Your task to perform on an android device: turn on the 12-hour format for clock Image 0: 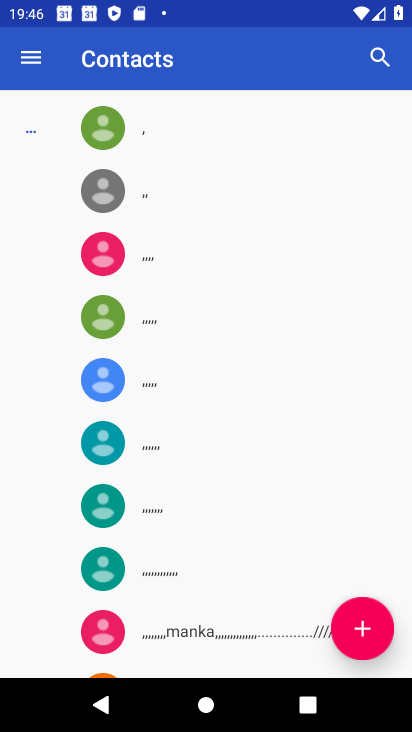
Step 0: press home button
Your task to perform on an android device: turn on the 12-hour format for clock Image 1: 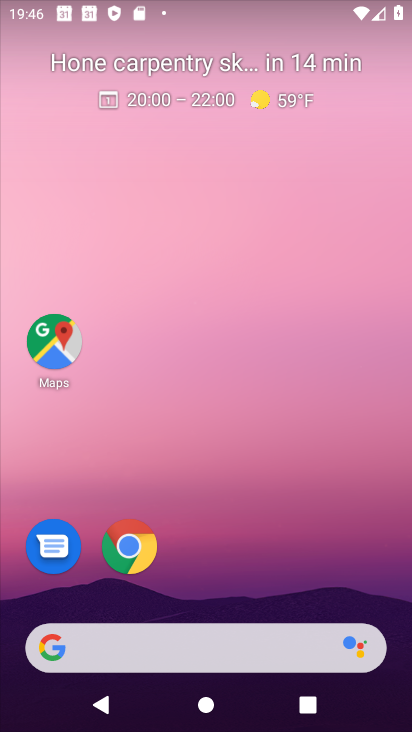
Step 1: drag from (378, 580) to (361, 286)
Your task to perform on an android device: turn on the 12-hour format for clock Image 2: 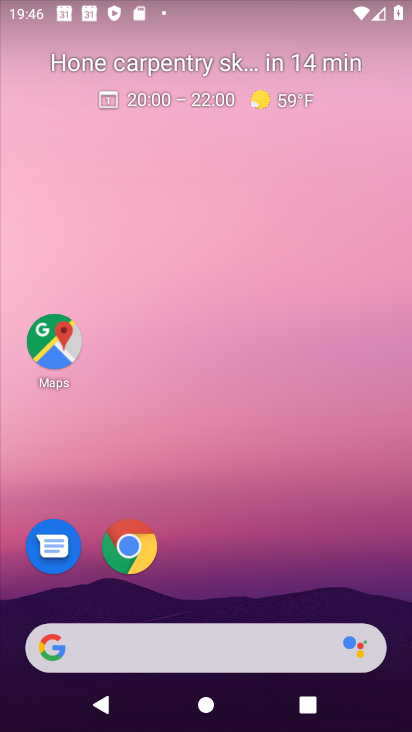
Step 2: drag from (344, 573) to (339, 186)
Your task to perform on an android device: turn on the 12-hour format for clock Image 3: 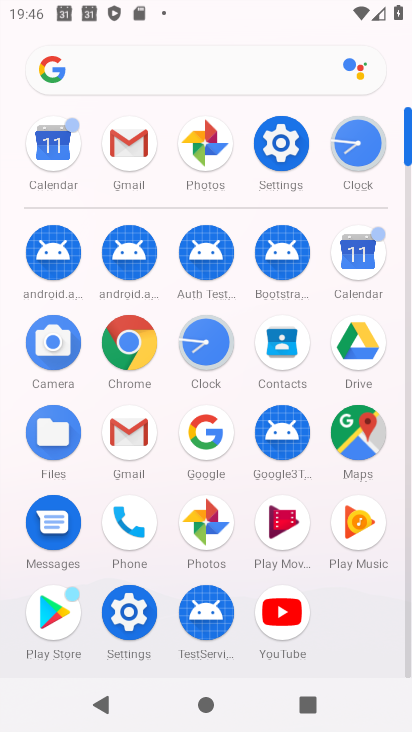
Step 3: click (199, 363)
Your task to perform on an android device: turn on the 12-hour format for clock Image 4: 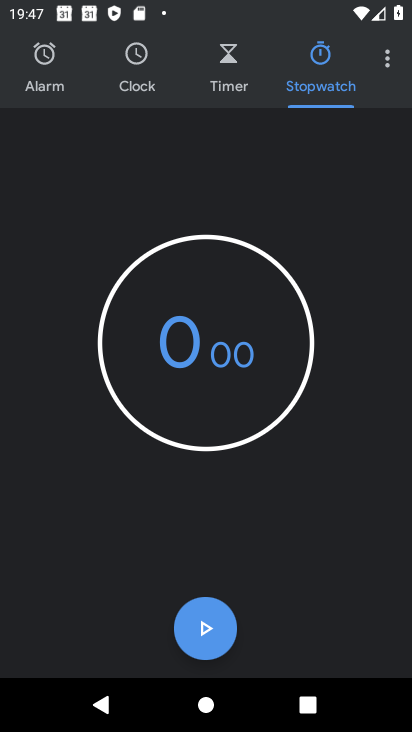
Step 4: click (386, 57)
Your task to perform on an android device: turn on the 12-hour format for clock Image 5: 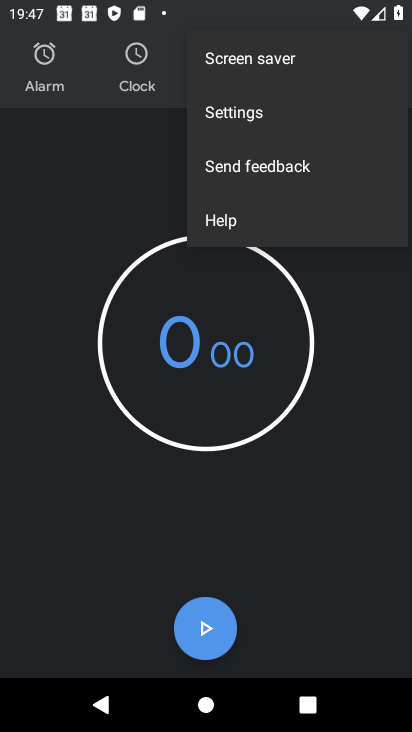
Step 5: click (277, 122)
Your task to perform on an android device: turn on the 12-hour format for clock Image 6: 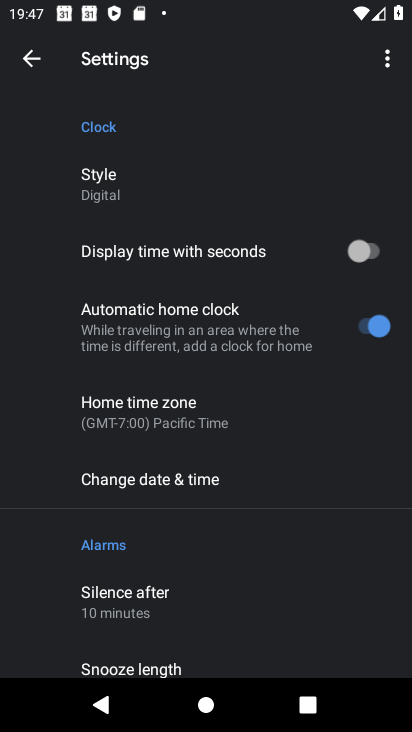
Step 6: click (228, 481)
Your task to perform on an android device: turn on the 12-hour format for clock Image 7: 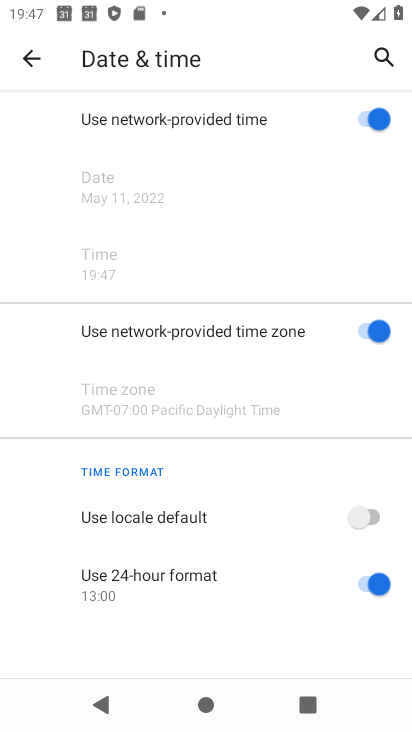
Step 7: click (371, 585)
Your task to perform on an android device: turn on the 12-hour format for clock Image 8: 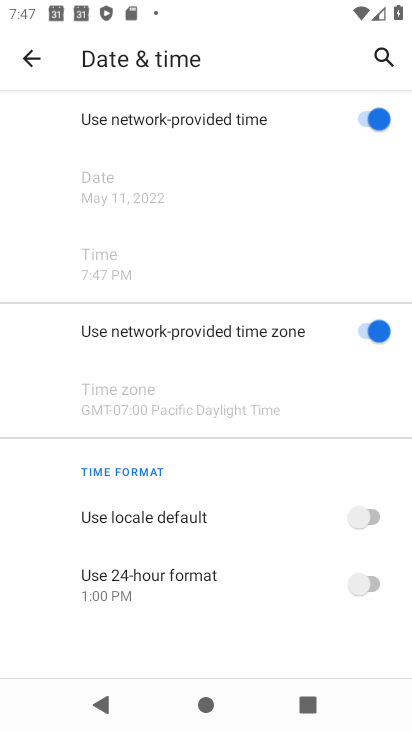
Step 8: task complete